Your task to perform on an android device: toggle airplane mode Image 0: 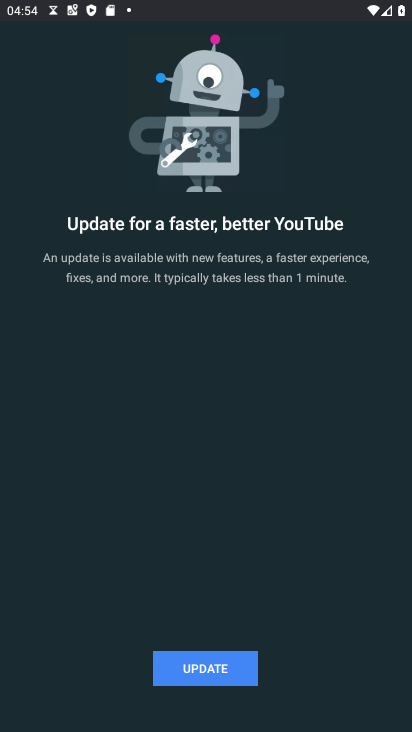
Step 0: press home button
Your task to perform on an android device: toggle airplane mode Image 1: 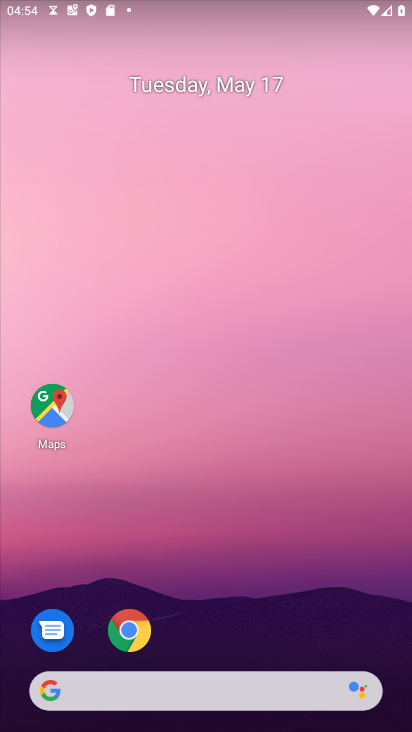
Step 1: drag from (314, 36) to (296, 343)
Your task to perform on an android device: toggle airplane mode Image 2: 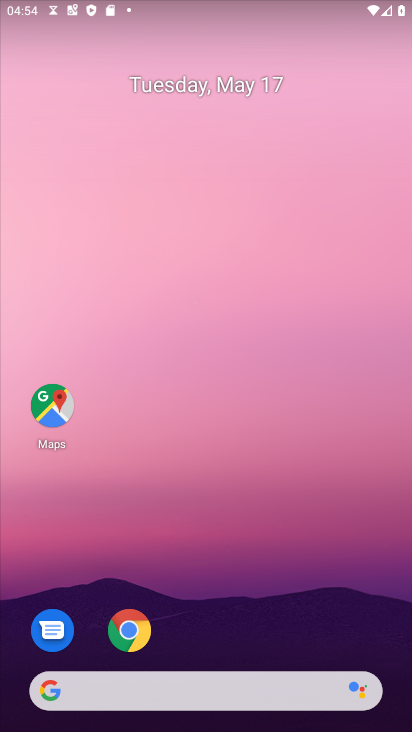
Step 2: drag from (278, 13) to (239, 326)
Your task to perform on an android device: toggle airplane mode Image 3: 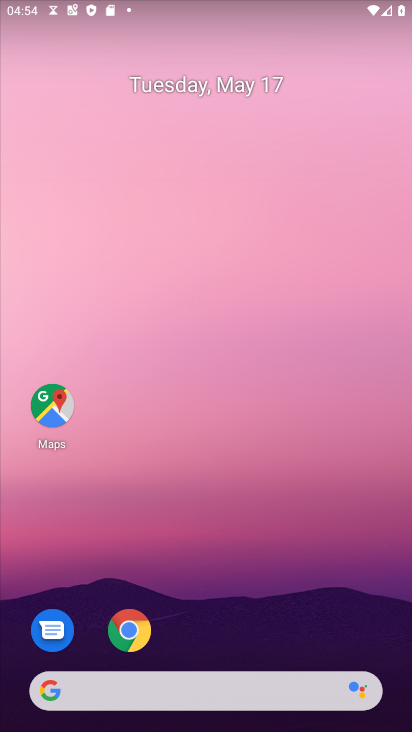
Step 3: drag from (305, 9) to (288, 344)
Your task to perform on an android device: toggle airplane mode Image 4: 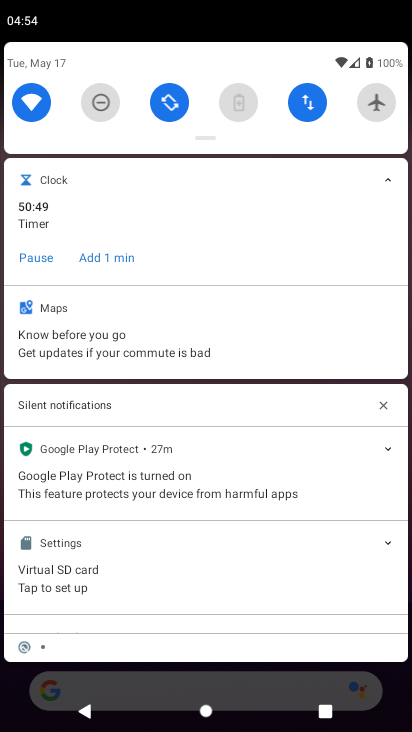
Step 4: drag from (328, 137) to (322, 388)
Your task to perform on an android device: toggle airplane mode Image 5: 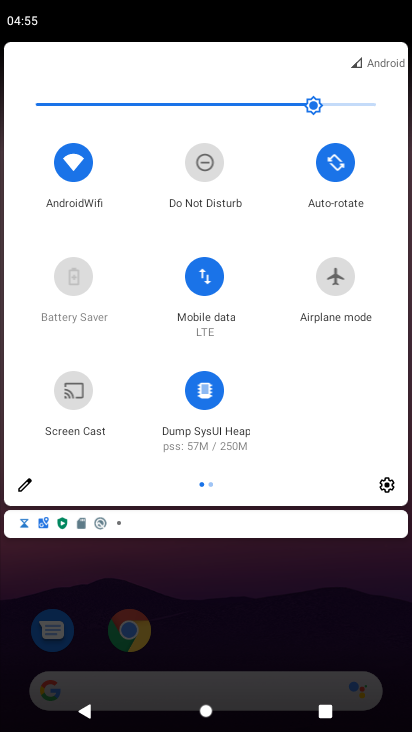
Step 5: click (327, 276)
Your task to perform on an android device: toggle airplane mode Image 6: 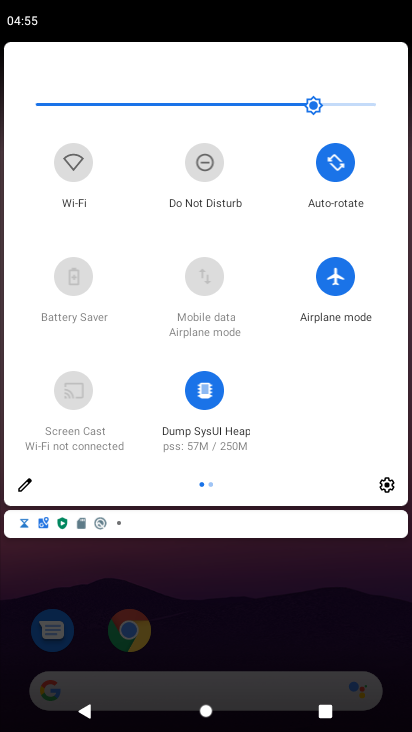
Step 6: task complete